Your task to perform on an android device: toggle priority inbox in the gmail app Image 0: 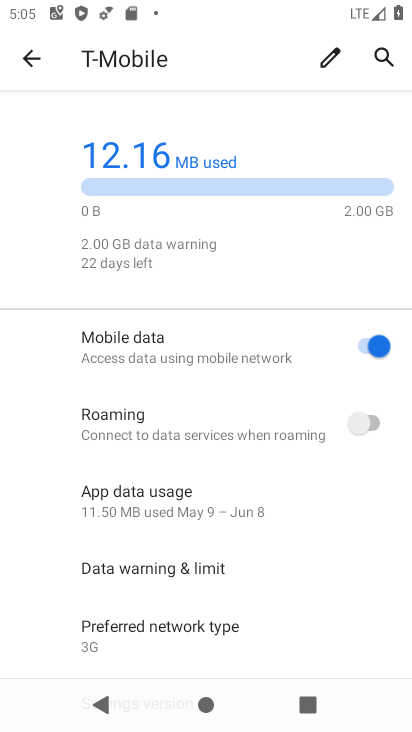
Step 0: press home button
Your task to perform on an android device: toggle priority inbox in the gmail app Image 1: 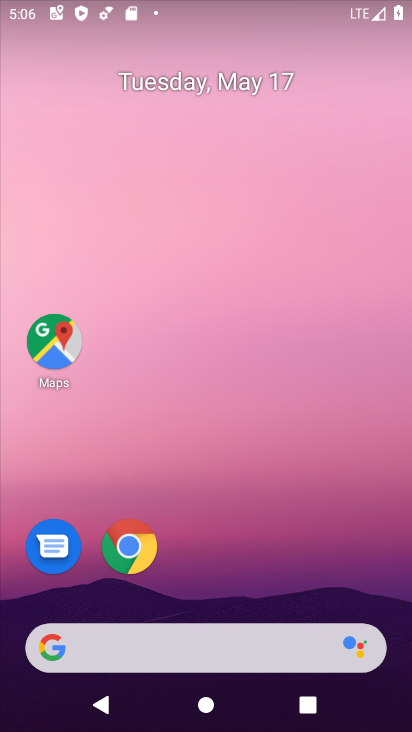
Step 1: drag from (198, 593) to (319, 94)
Your task to perform on an android device: toggle priority inbox in the gmail app Image 2: 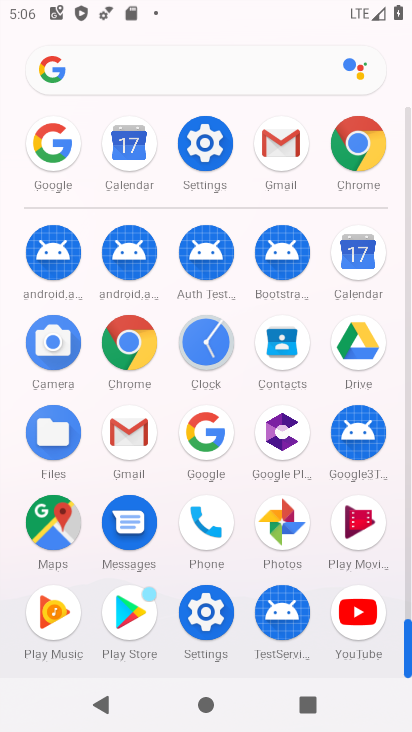
Step 2: click (281, 145)
Your task to perform on an android device: toggle priority inbox in the gmail app Image 3: 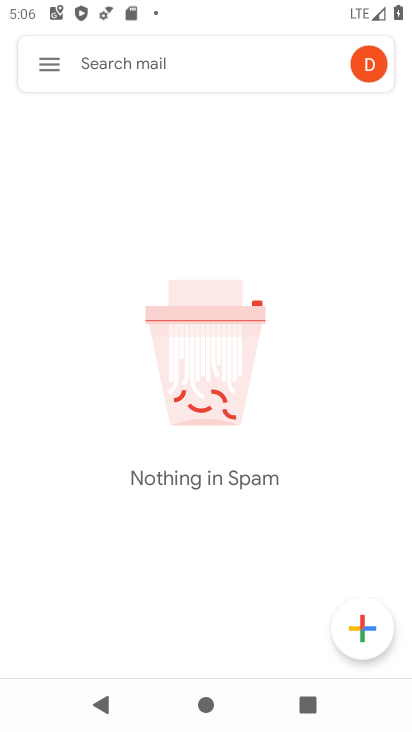
Step 3: click (51, 63)
Your task to perform on an android device: toggle priority inbox in the gmail app Image 4: 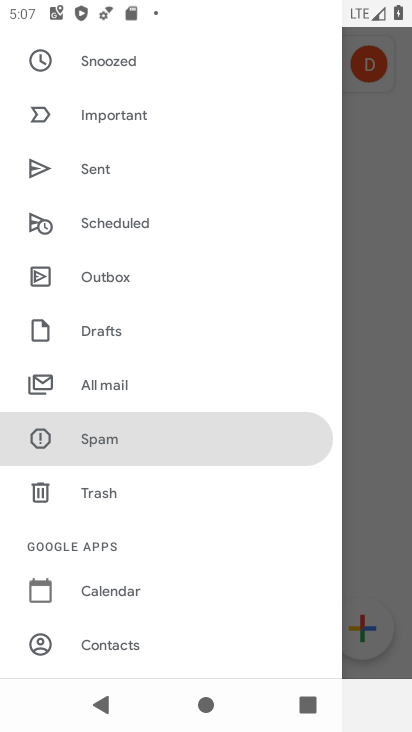
Step 4: drag from (182, 220) to (109, 465)
Your task to perform on an android device: toggle priority inbox in the gmail app Image 5: 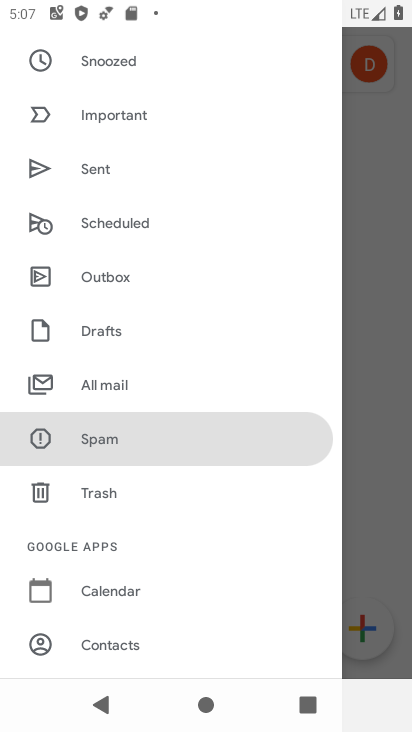
Step 5: drag from (101, 573) to (165, 210)
Your task to perform on an android device: toggle priority inbox in the gmail app Image 6: 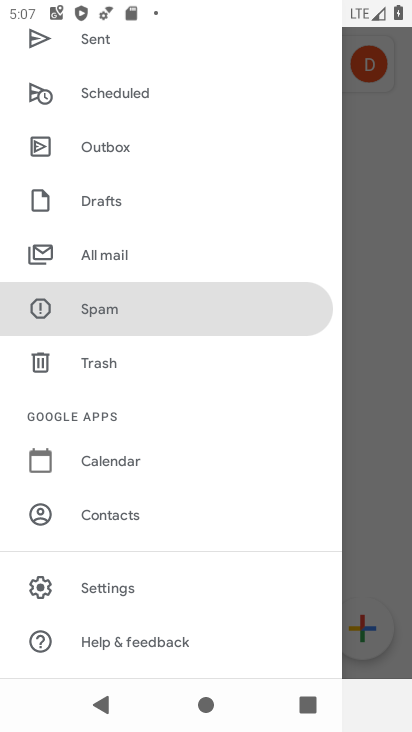
Step 6: click (104, 593)
Your task to perform on an android device: toggle priority inbox in the gmail app Image 7: 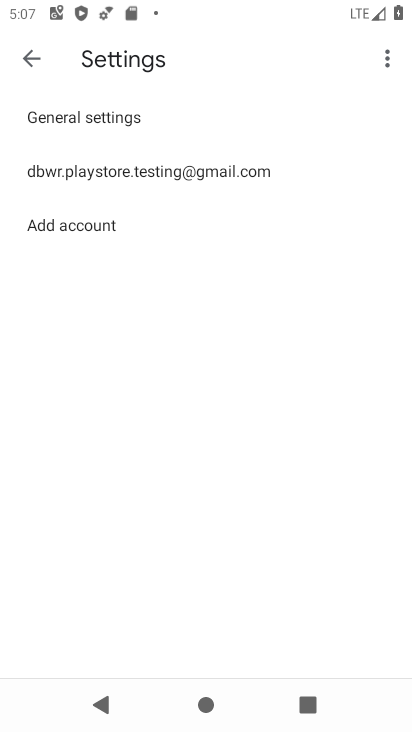
Step 7: click (183, 161)
Your task to perform on an android device: toggle priority inbox in the gmail app Image 8: 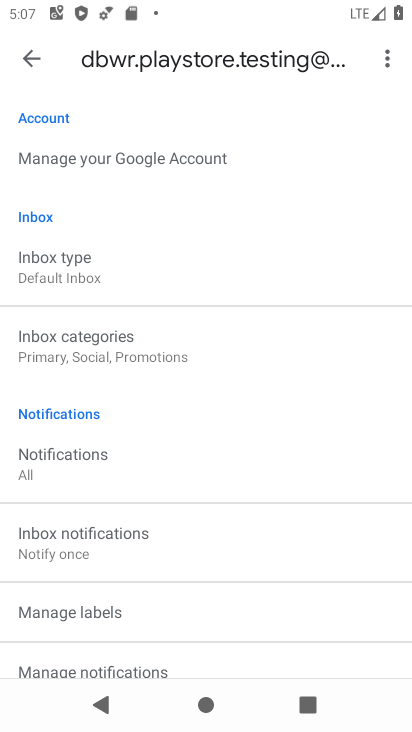
Step 8: click (78, 268)
Your task to perform on an android device: toggle priority inbox in the gmail app Image 9: 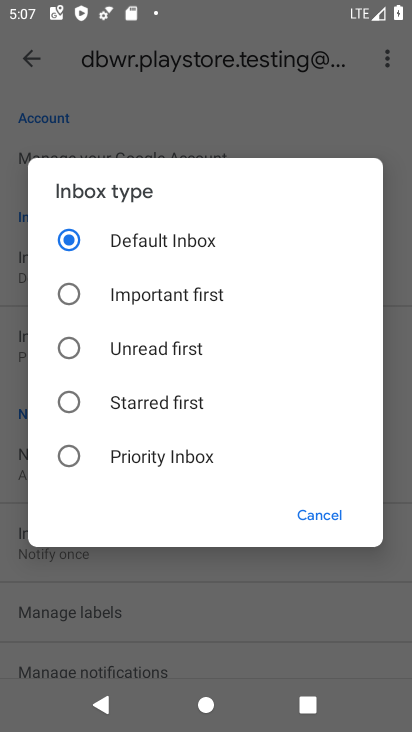
Step 9: click (65, 463)
Your task to perform on an android device: toggle priority inbox in the gmail app Image 10: 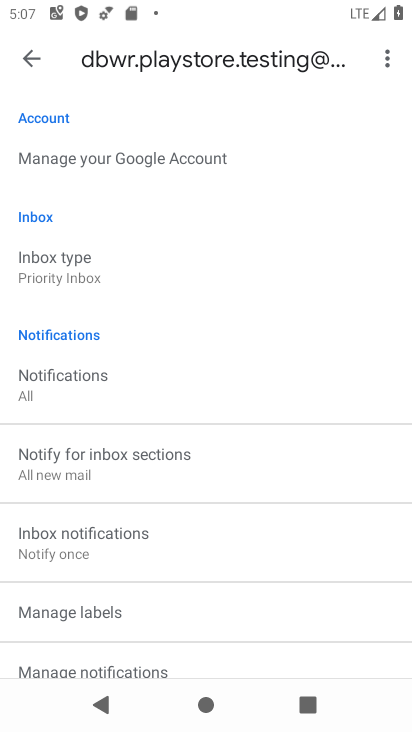
Step 10: task complete